Your task to perform on an android device: turn on sleep mode Image 0: 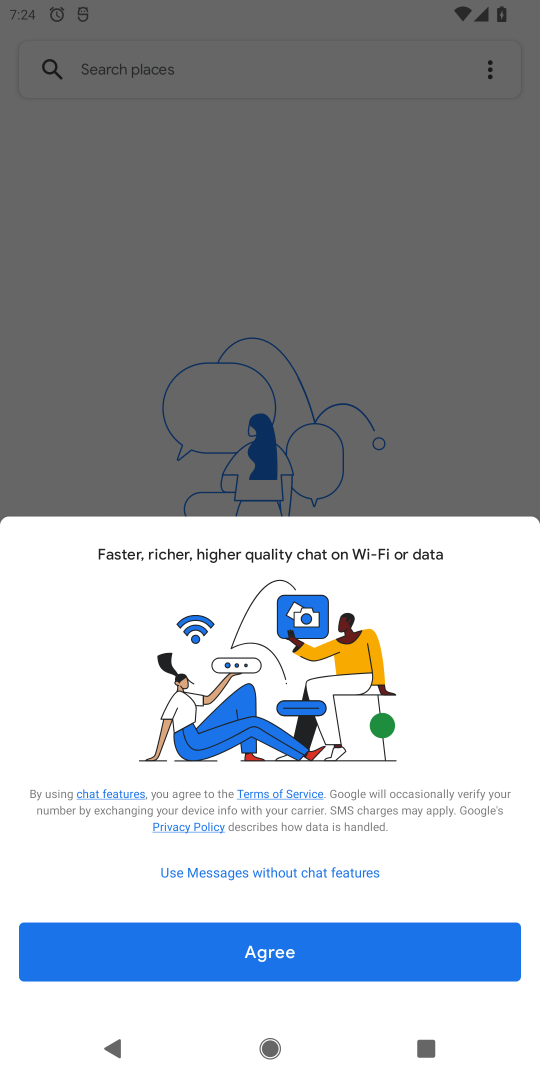
Step 0: press home button
Your task to perform on an android device: turn on sleep mode Image 1: 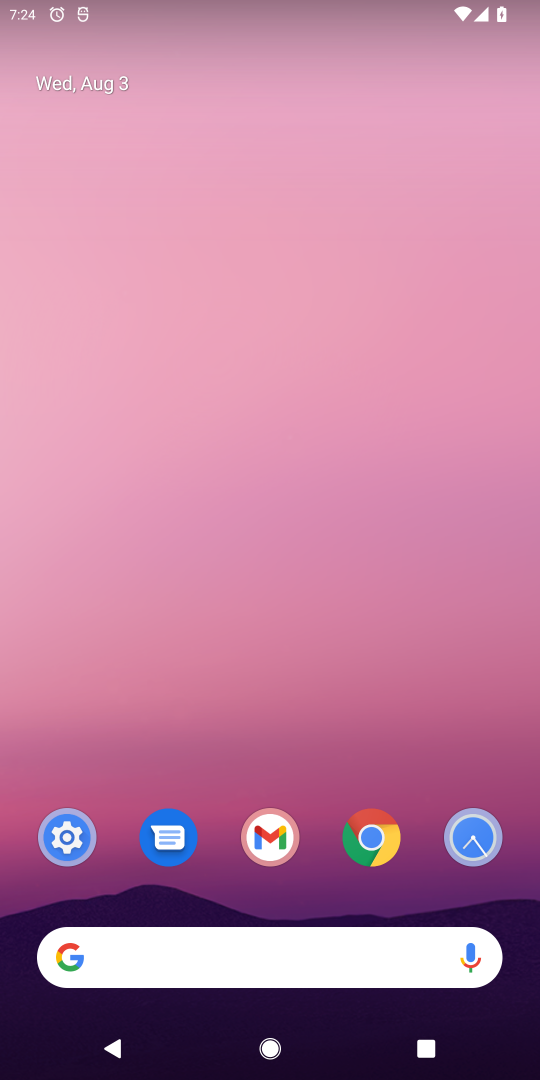
Step 1: drag from (317, 734) to (241, 92)
Your task to perform on an android device: turn on sleep mode Image 2: 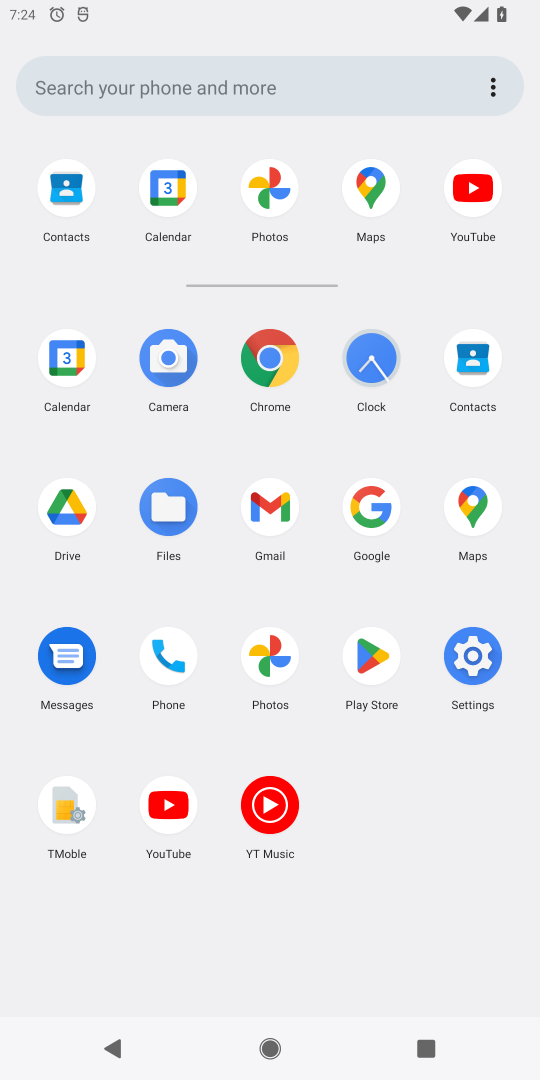
Step 2: click (473, 667)
Your task to perform on an android device: turn on sleep mode Image 3: 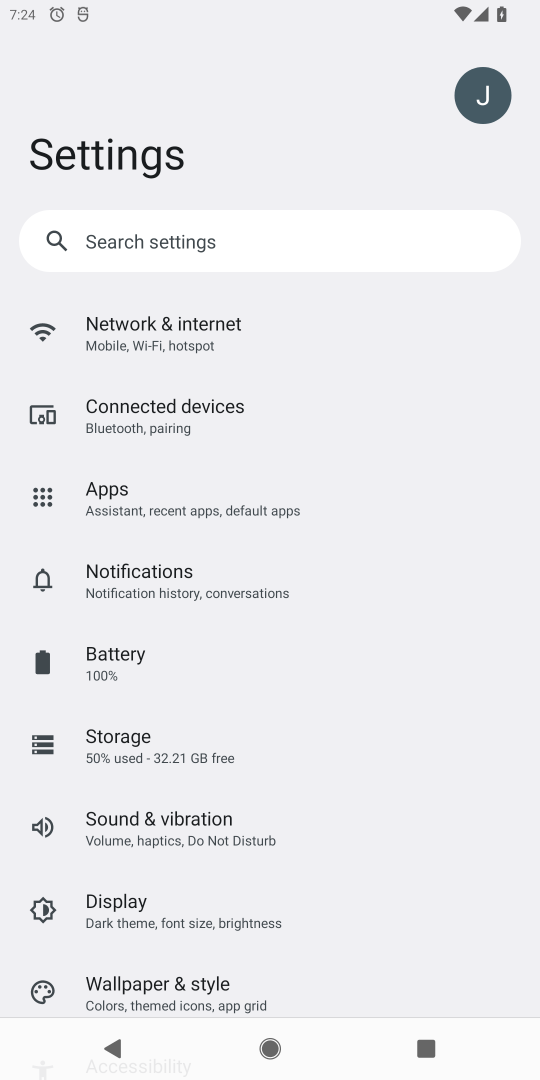
Step 3: click (188, 922)
Your task to perform on an android device: turn on sleep mode Image 4: 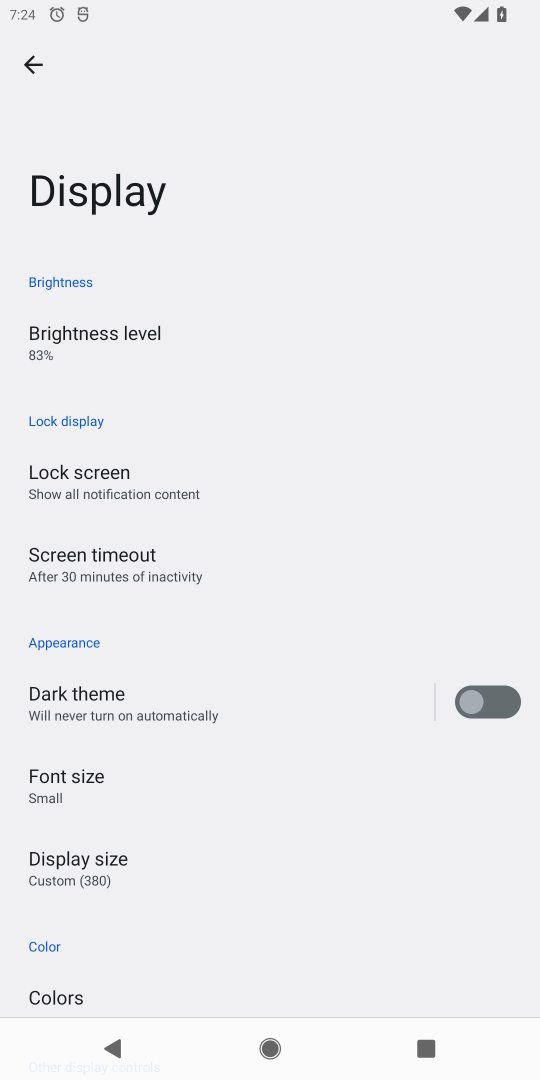
Step 4: task complete